Your task to perform on an android device: Open notification settings Image 0: 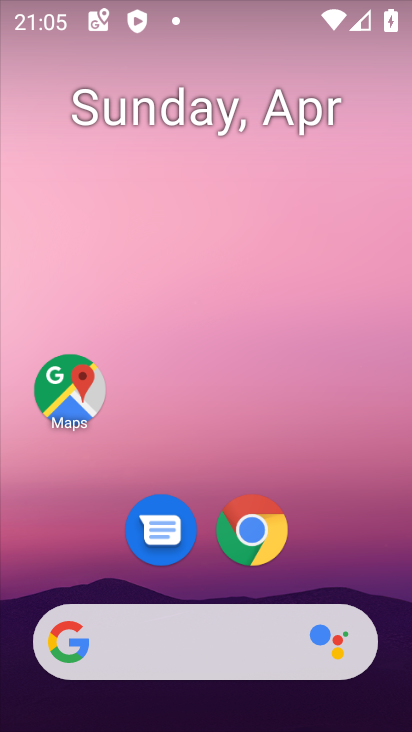
Step 0: drag from (205, 520) to (224, 60)
Your task to perform on an android device: Open notification settings Image 1: 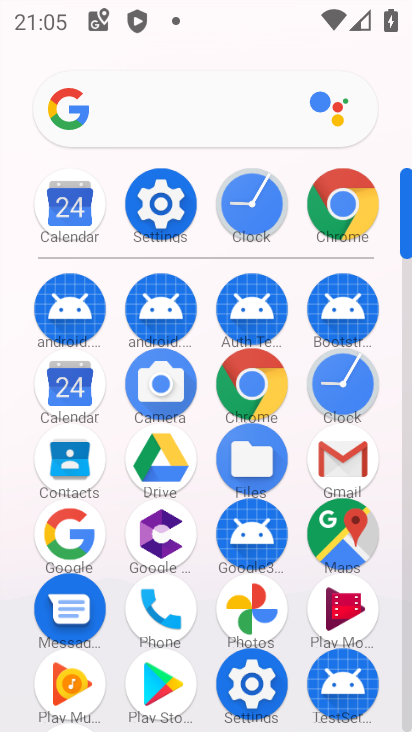
Step 1: click (153, 223)
Your task to perform on an android device: Open notification settings Image 2: 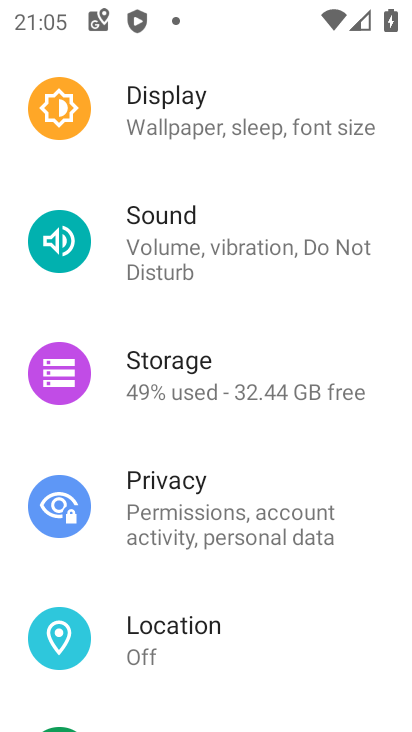
Step 2: drag from (230, 119) to (212, 593)
Your task to perform on an android device: Open notification settings Image 3: 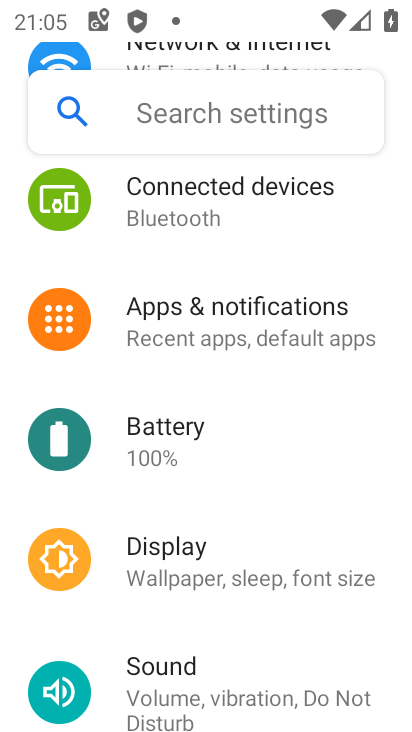
Step 3: click (245, 328)
Your task to perform on an android device: Open notification settings Image 4: 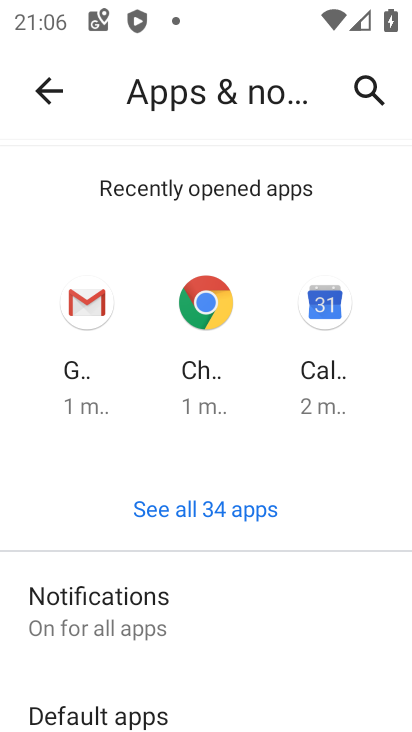
Step 4: click (138, 611)
Your task to perform on an android device: Open notification settings Image 5: 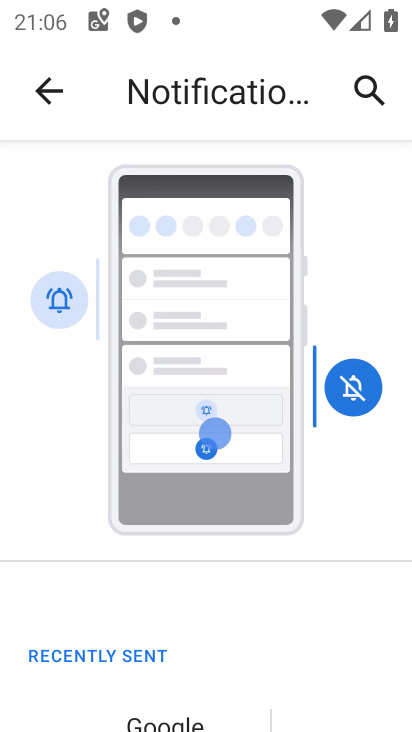
Step 5: task complete